Your task to perform on an android device: Go to ESPN.com Image 0: 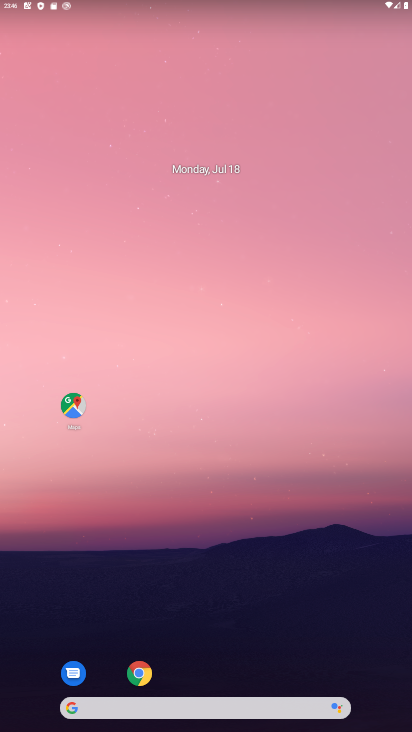
Step 0: click (149, 668)
Your task to perform on an android device: Go to ESPN.com Image 1: 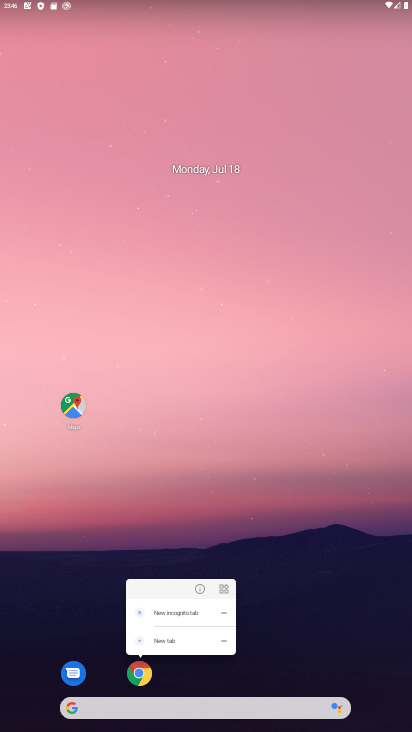
Step 1: click (171, 392)
Your task to perform on an android device: Go to ESPN.com Image 2: 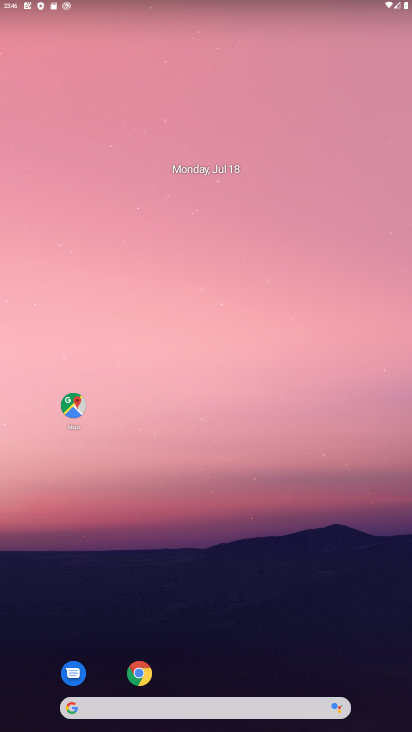
Step 2: drag from (272, 675) to (244, 158)
Your task to perform on an android device: Go to ESPN.com Image 3: 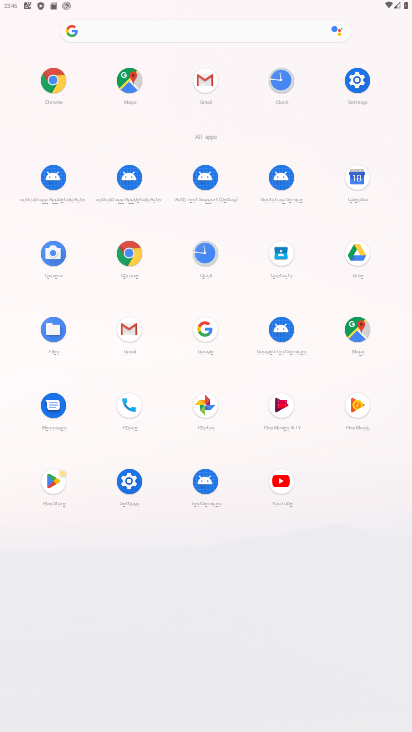
Step 3: click (122, 256)
Your task to perform on an android device: Go to ESPN.com Image 4: 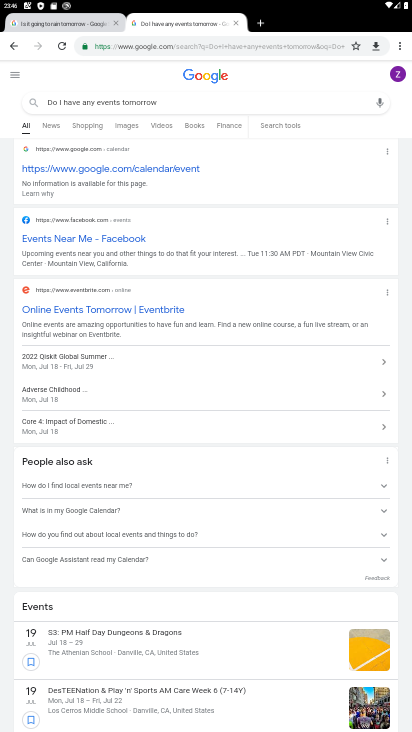
Step 4: click (255, 24)
Your task to perform on an android device: Go to ESPN.com Image 5: 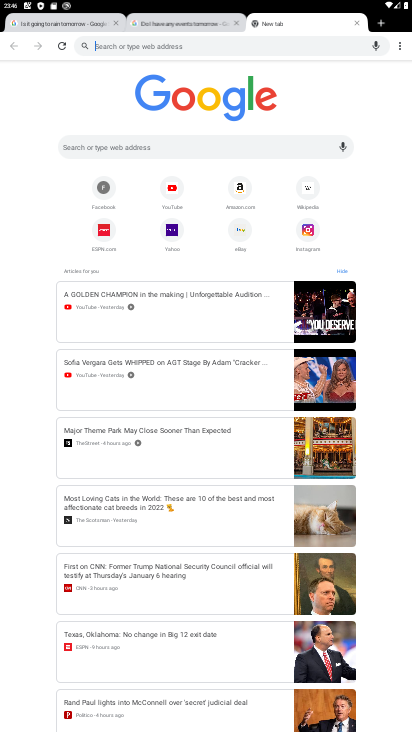
Step 5: click (104, 231)
Your task to perform on an android device: Go to ESPN.com Image 6: 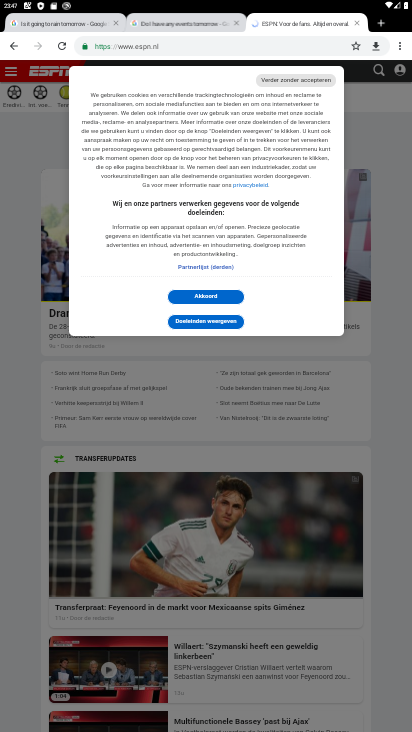
Step 6: task complete